Your task to perform on an android device: change notifications settings Image 0: 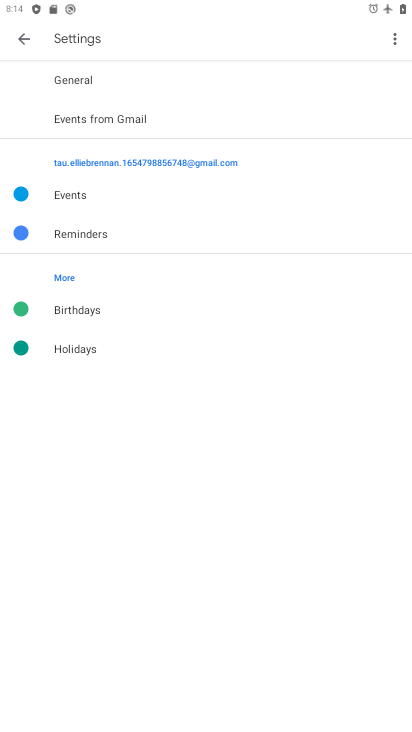
Step 0: press home button
Your task to perform on an android device: change notifications settings Image 1: 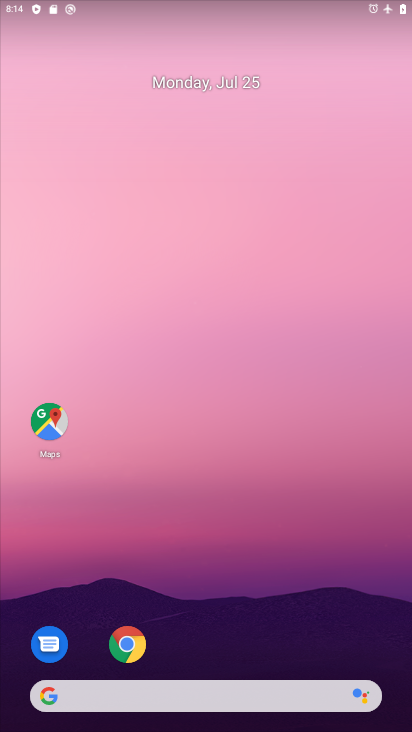
Step 1: drag from (192, 596) to (192, 196)
Your task to perform on an android device: change notifications settings Image 2: 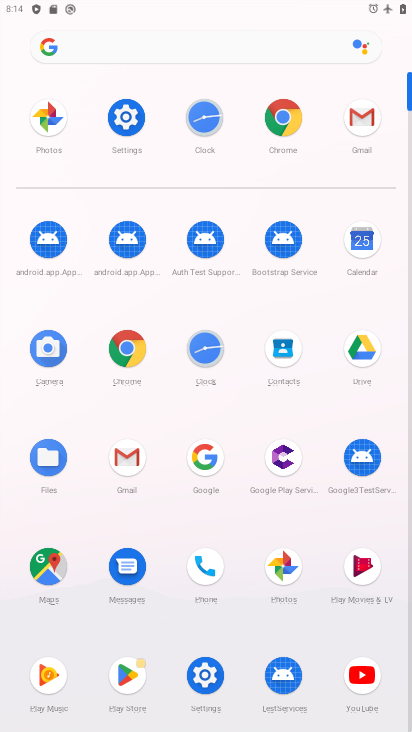
Step 2: click (129, 123)
Your task to perform on an android device: change notifications settings Image 3: 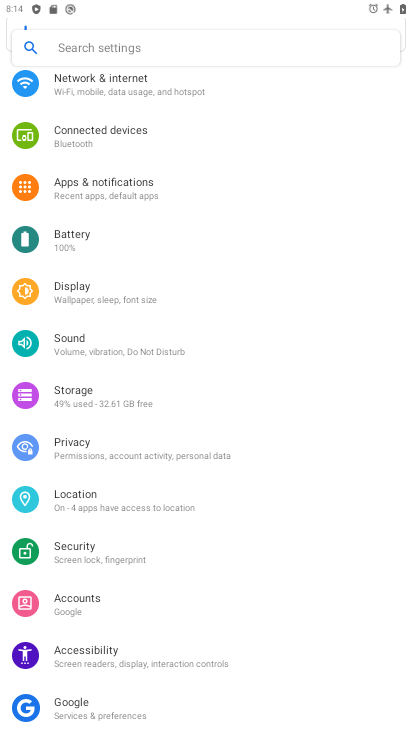
Step 3: click (88, 198)
Your task to perform on an android device: change notifications settings Image 4: 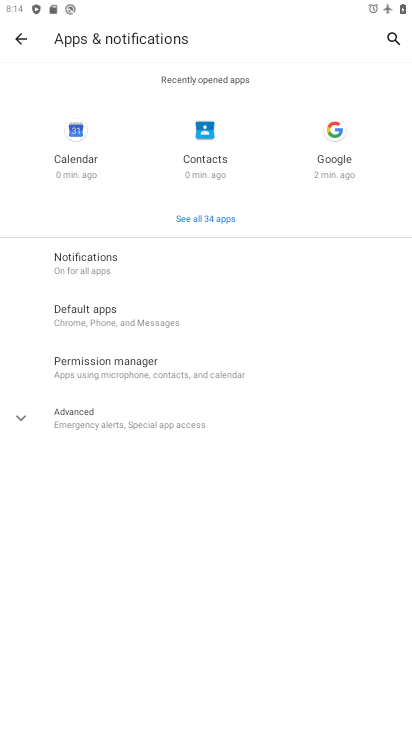
Step 4: click (65, 269)
Your task to perform on an android device: change notifications settings Image 5: 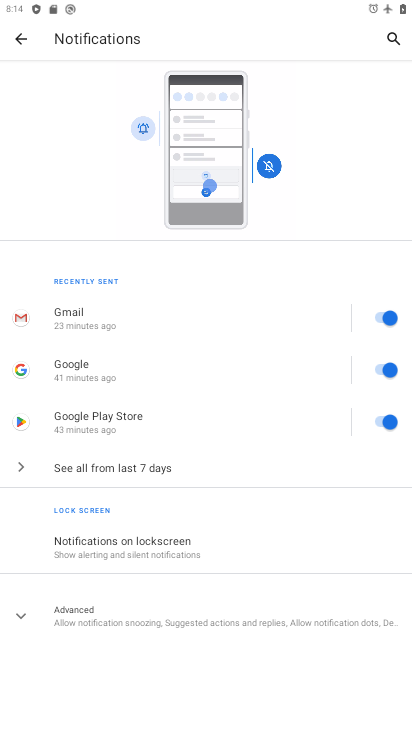
Step 5: task complete